Your task to perform on an android device: Go to accessibility settings Image 0: 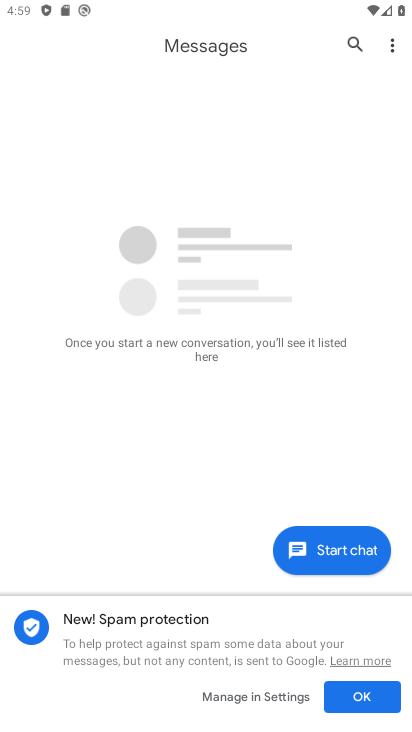
Step 0: press home button
Your task to perform on an android device: Go to accessibility settings Image 1: 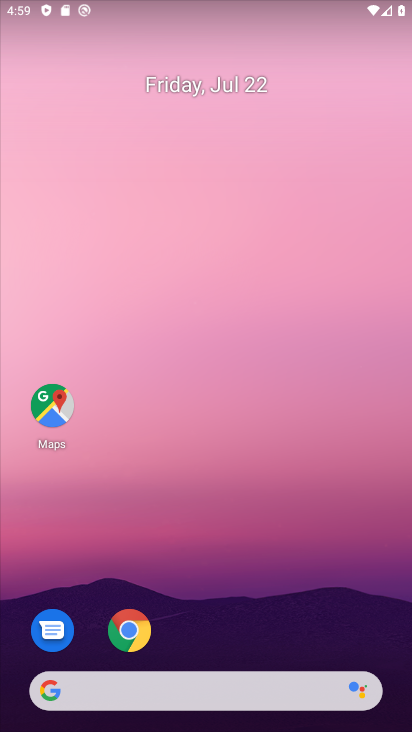
Step 1: drag from (197, 475) to (210, 344)
Your task to perform on an android device: Go to accessibility settings Image 2: 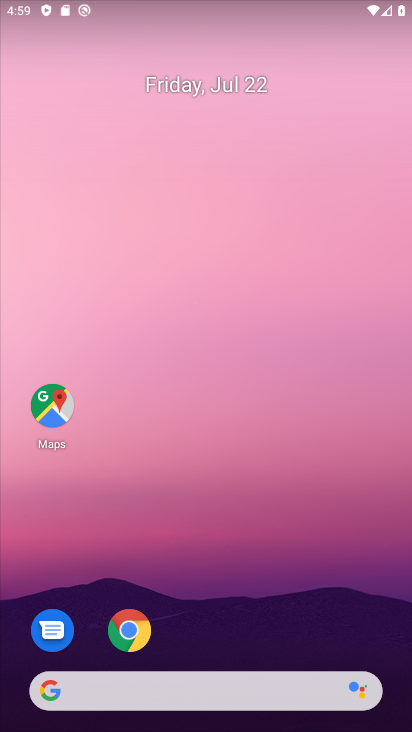
Step 2: drag from (183, 272) to (222, 50)
Your task to perform on an android device: Go to accessibility settings Image 3: 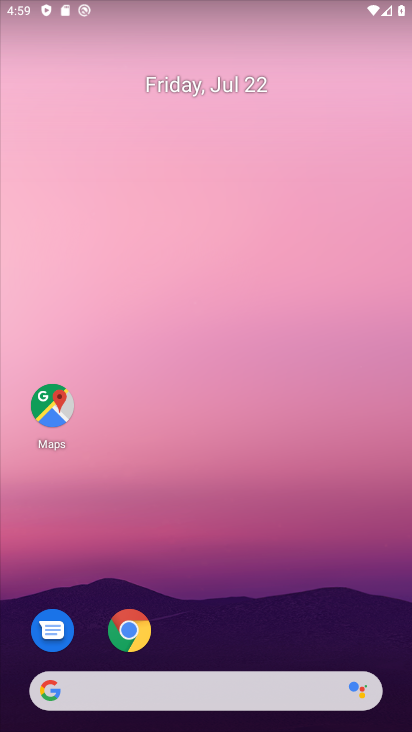
Step 3: drag from (195, 603) to (248, 283)
Your task to perform on an android device: Go to accessibility settings Image 4: 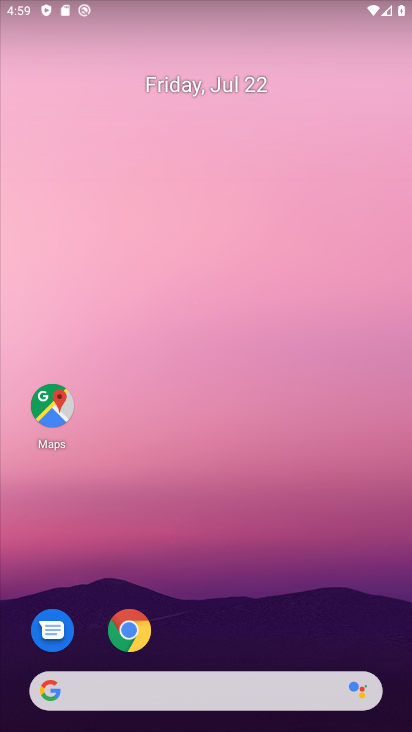
Step 4: drag from (191, 601) to (196, 81)
Your task to perform on an android device: Go to accessibility settings Image 5: 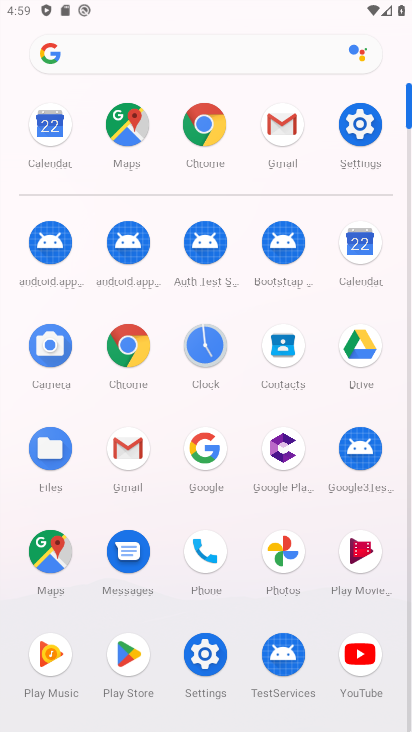
Step 5: click (356, 125)
Your task to perform on an android device: Go to accessibility settings Image 6: 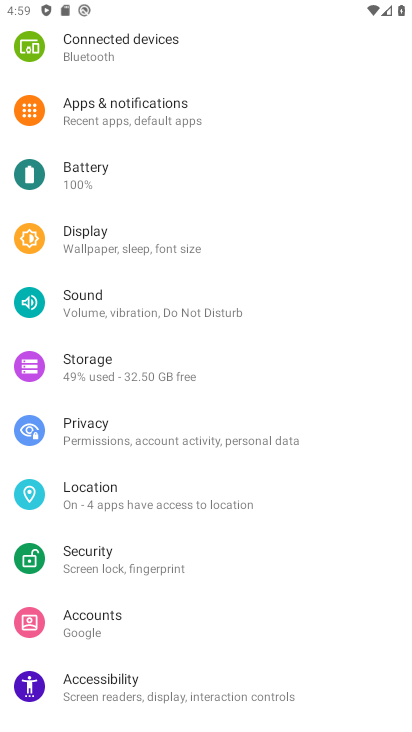
Step 6: click (88, 695)
Your task to perform on an android device: Go to accessibility settings Image 7: 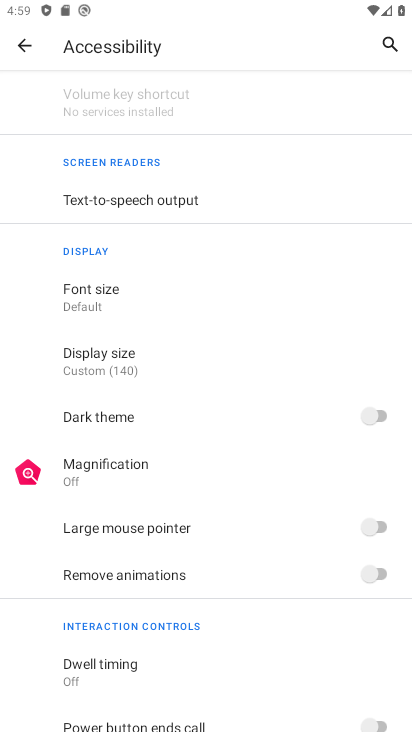
Step 7: task complete